Your task to perform on an android device: open app "YouTube Kids" Image 0: 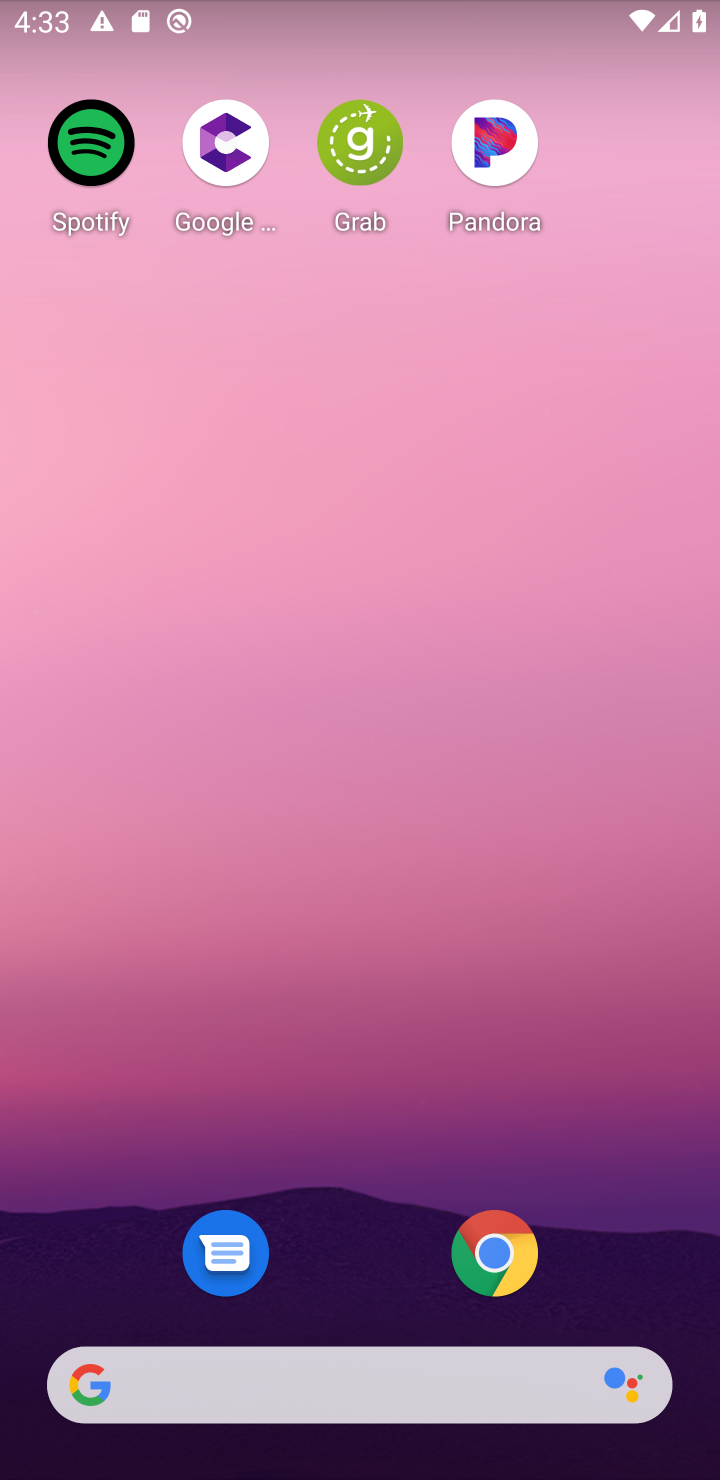
Step 0: drag from (315, 1268) to (491, 206)
Your task to perform on an android device: open app "YouTube Kids" Image 1: 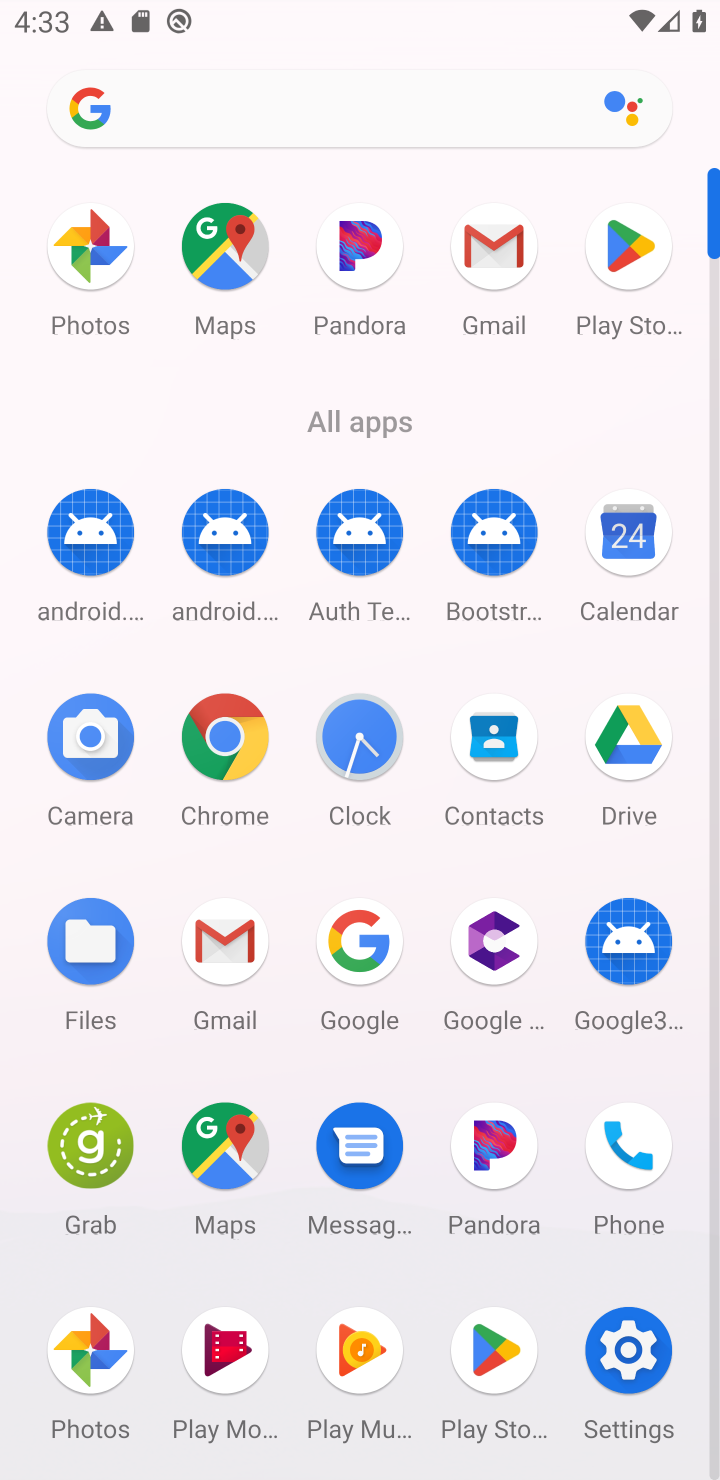
Step 1: click (634, 232)
Your task to perform on an android device: open app "YouTube Kids" Image 2: 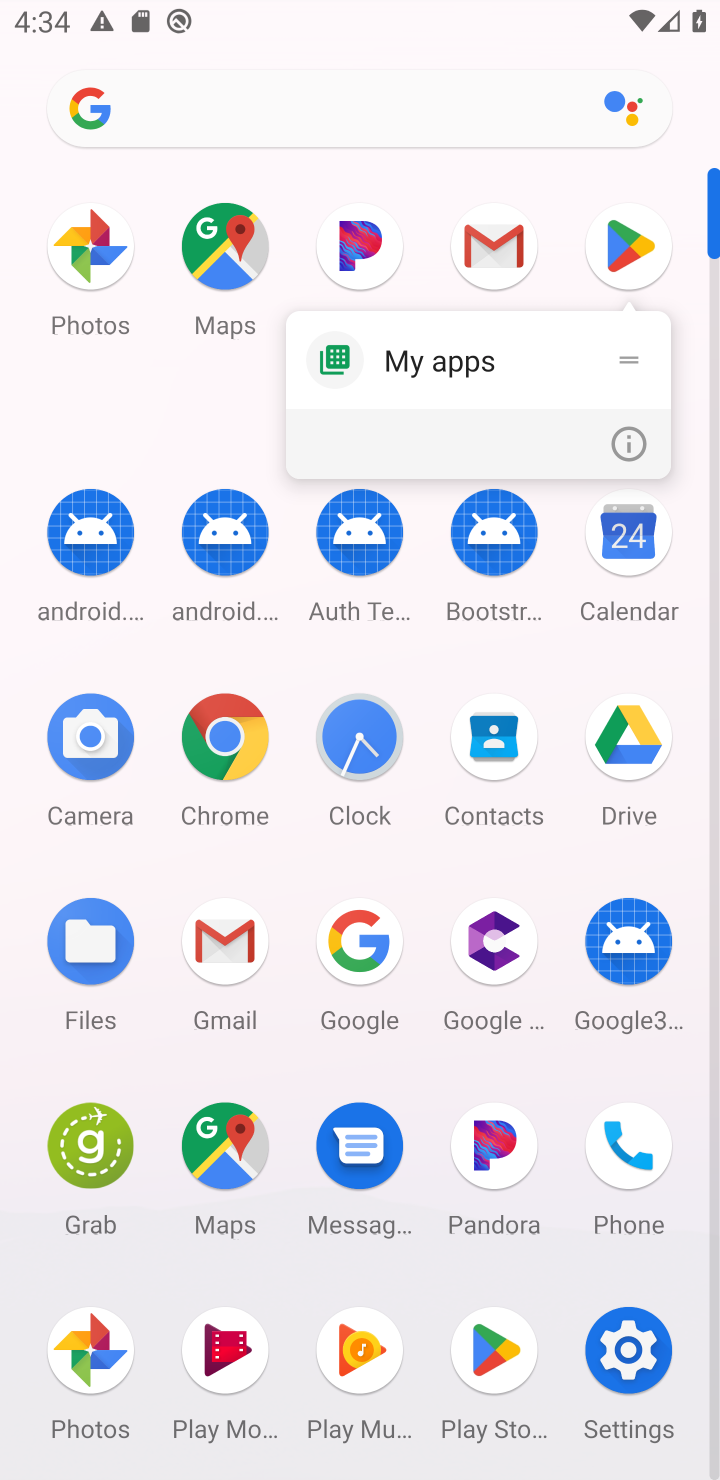
Step 2: click (624, 223)
Your task to perform on an android device: open app "YouTube Kids" Image 3: 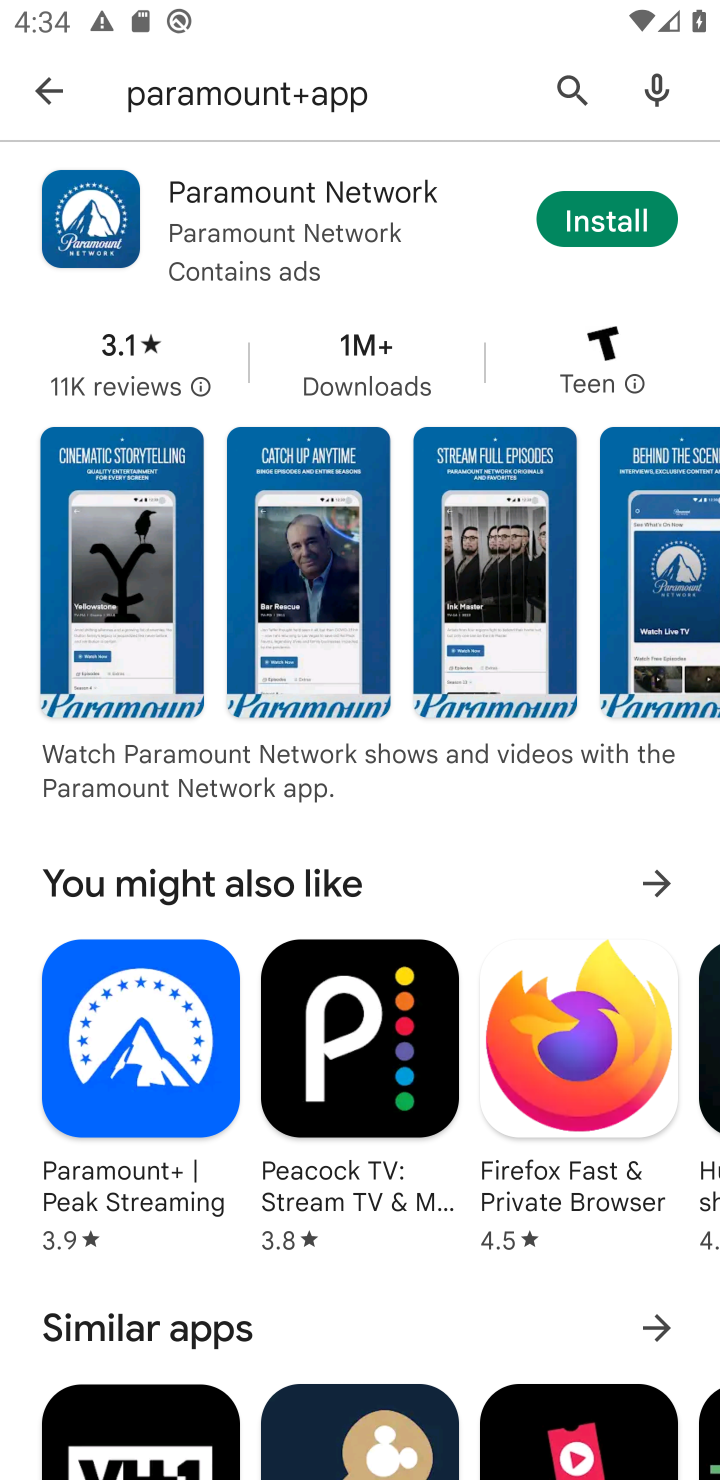
Step 3: click (565, 80)
Your task to perform on an android device: open app "YouTube Kids" Image 4: 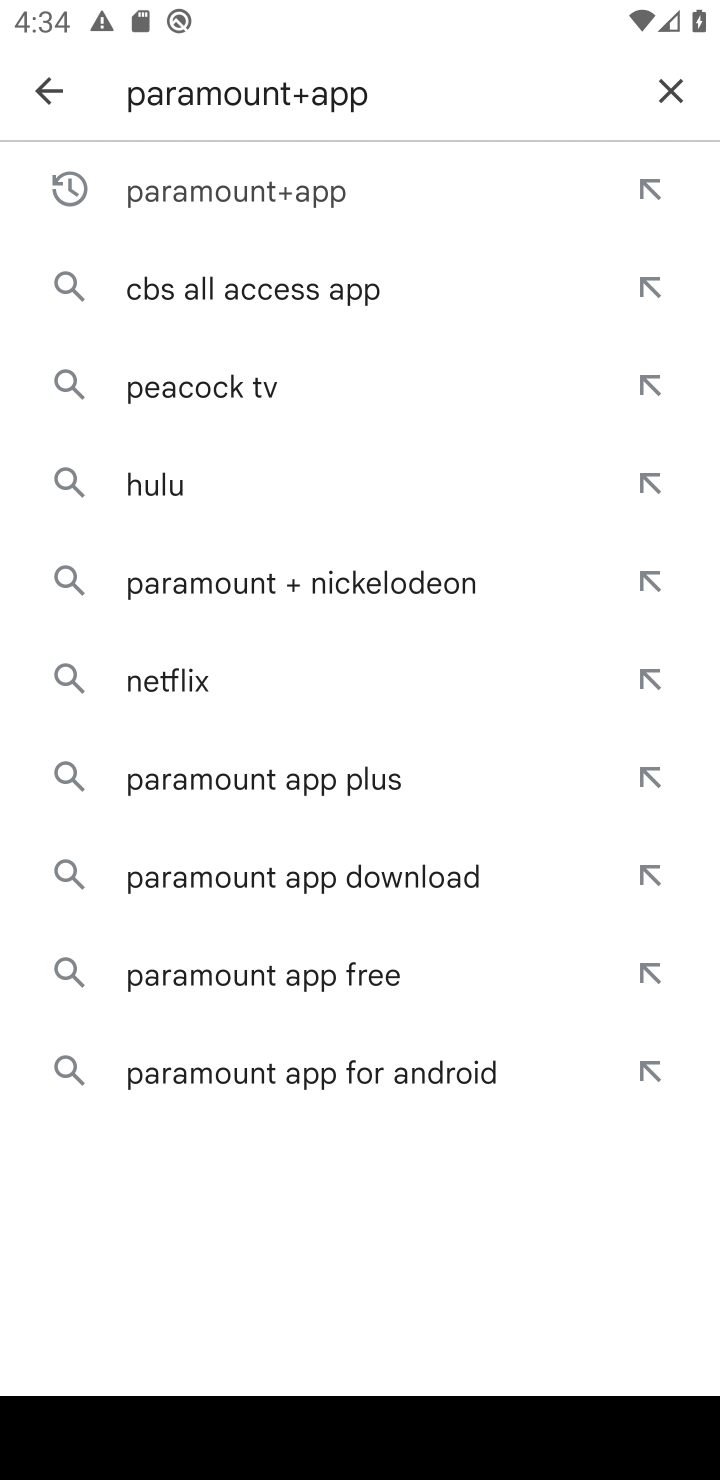
Step 4: click (676, 80)
Your task to perform on an android device: open app "YouTube Kids" Image 5: 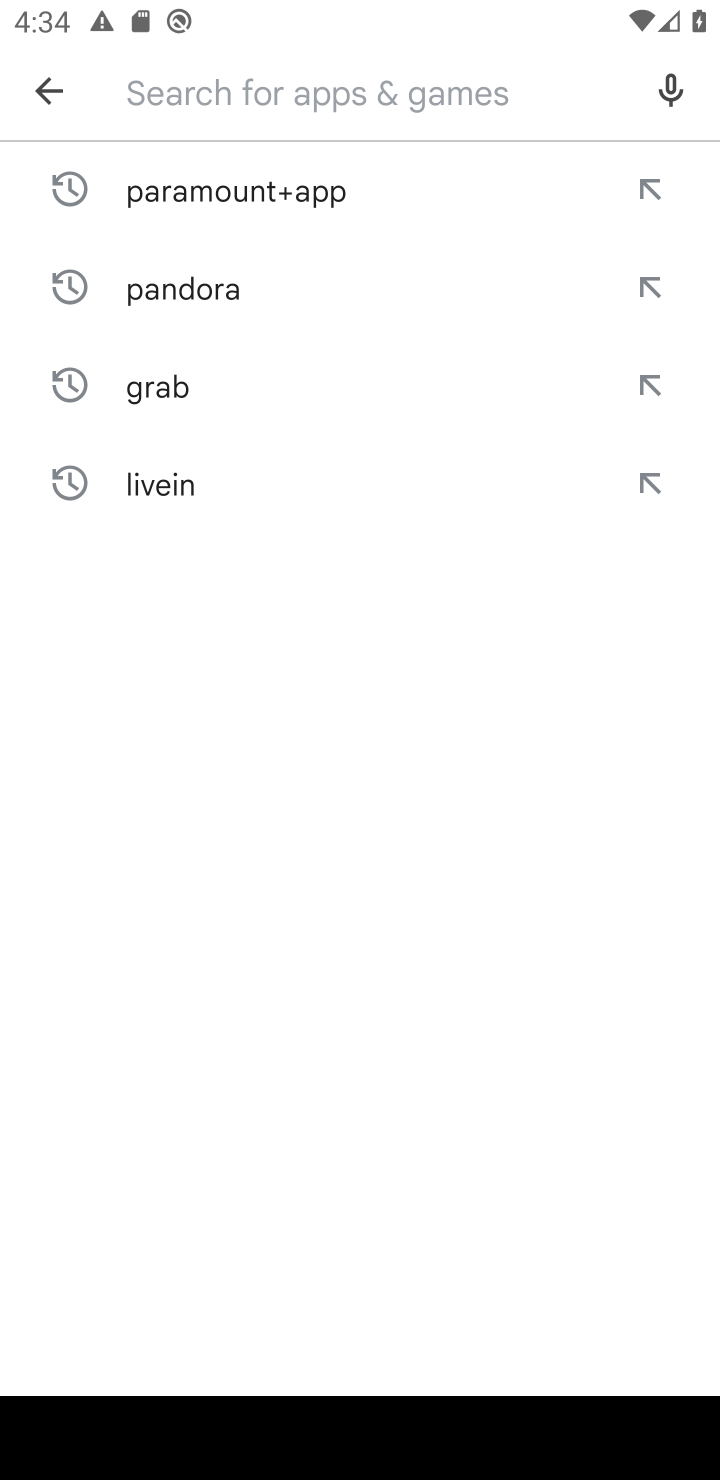
Step 5: click (287, 110)
Your task to perform on an android device: open app "YouTube Kids" Image 6: 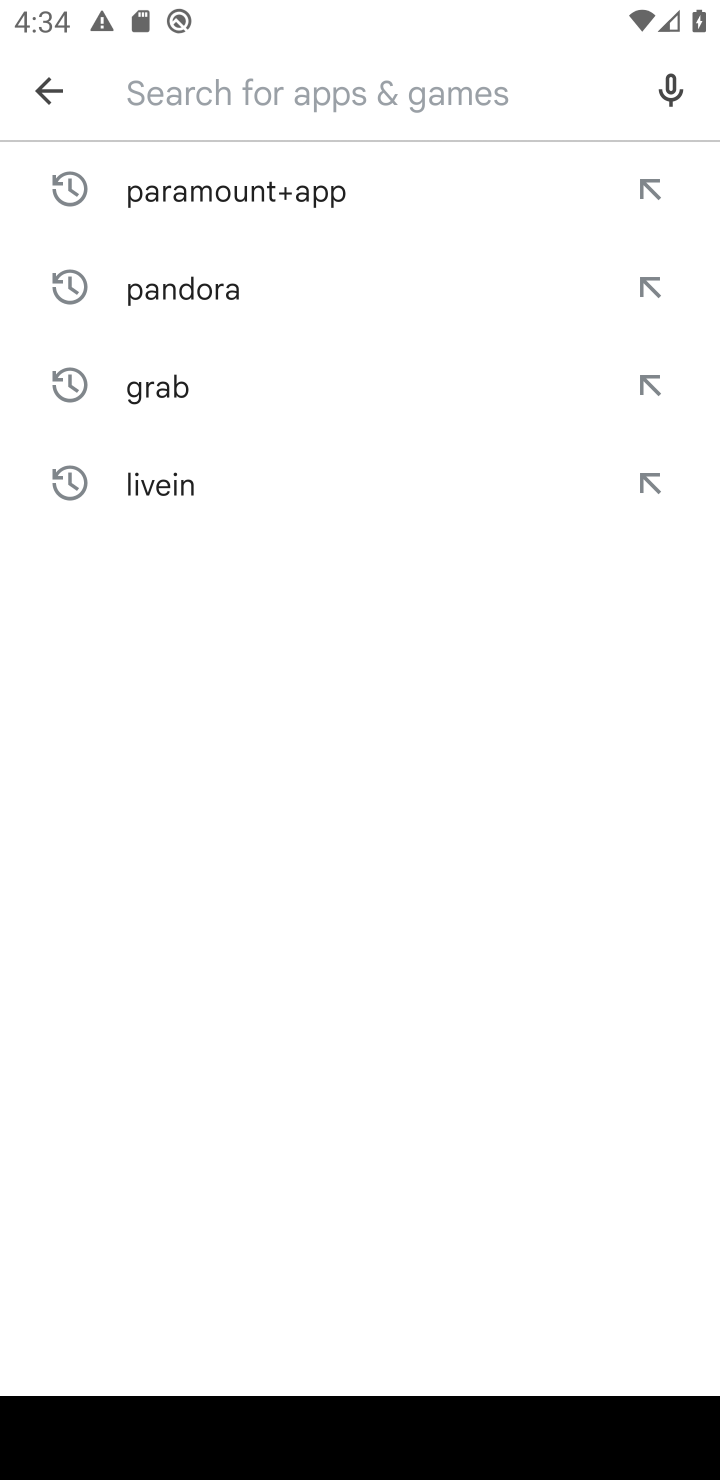
Step 6: type "YouTube Kids"
Your task to perform on an android device: open app "YouTube Kids" Image 7: 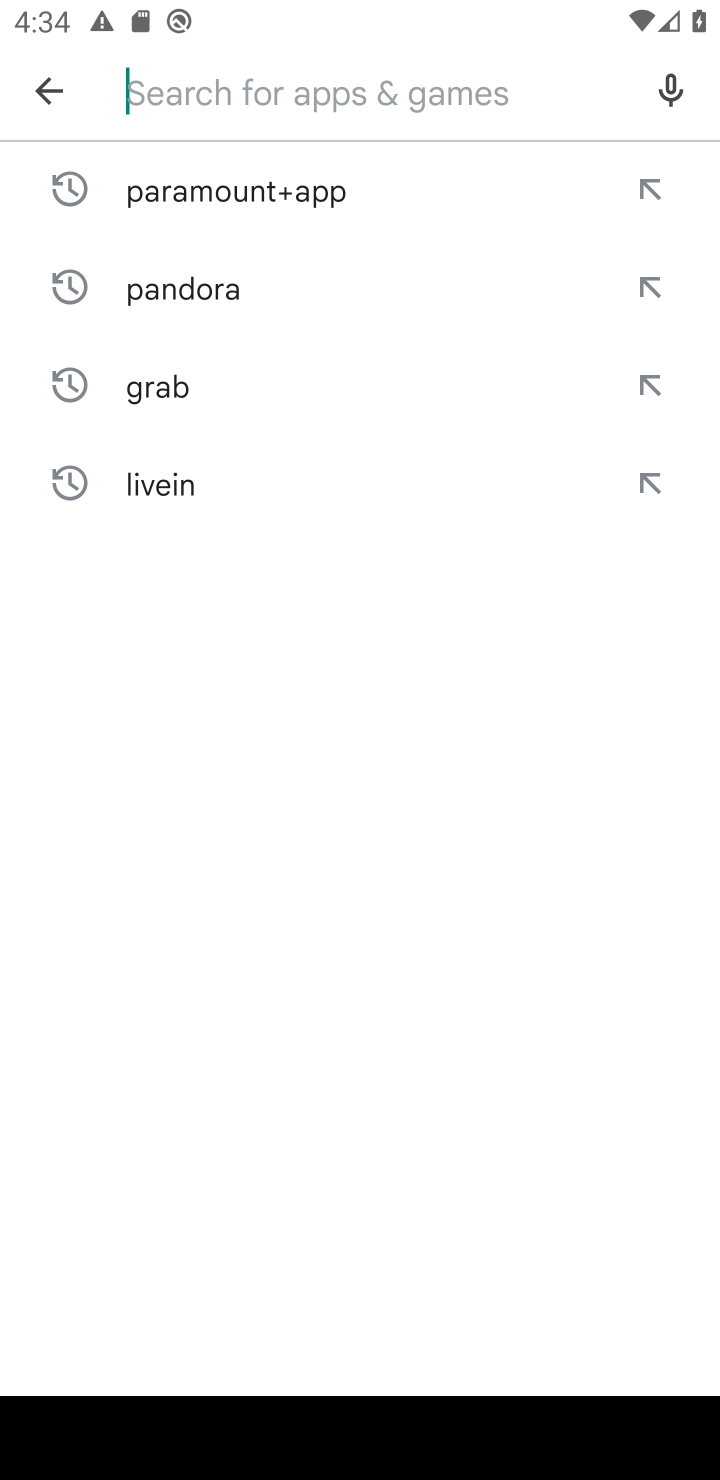
Step 7: click (552, 974)
Your task to perform on an android device: open app "YouTube Kids" Image 8: 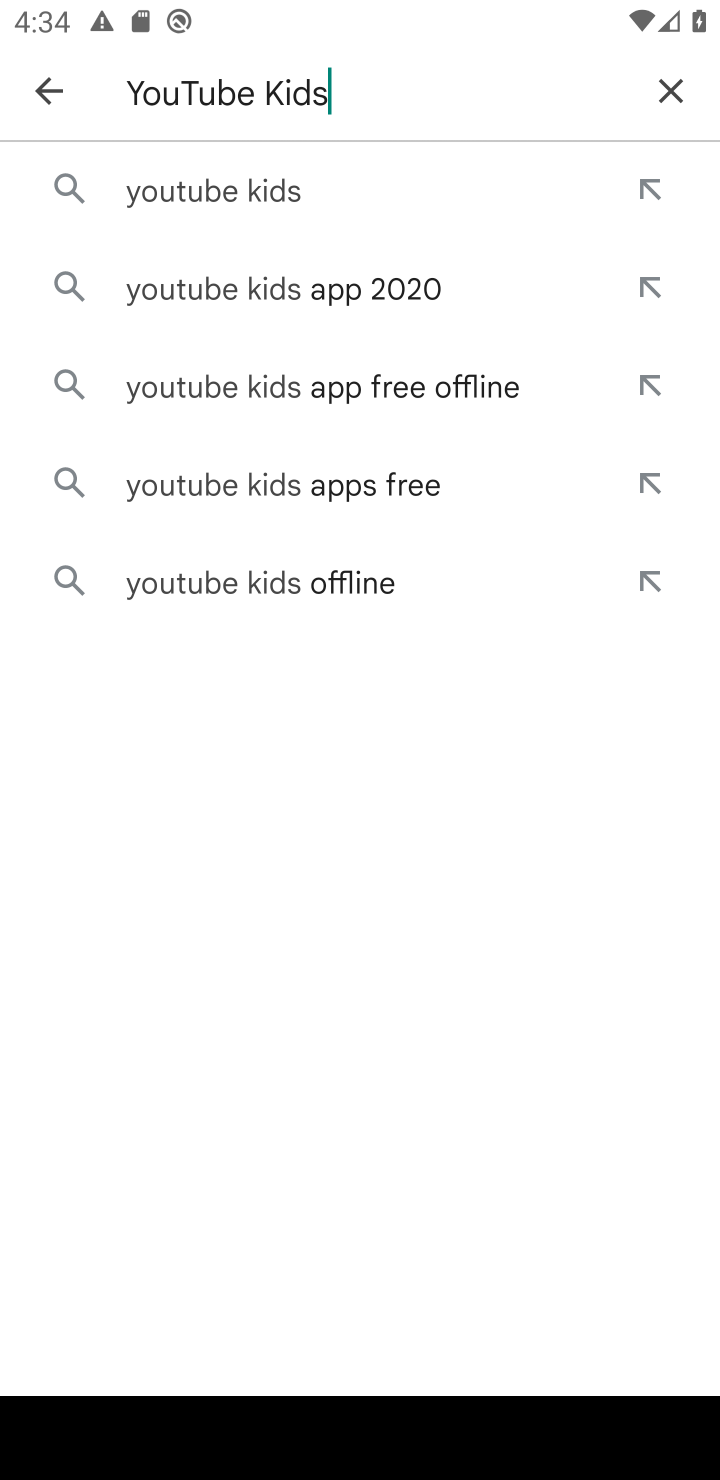
Step 8: click (223, 174)
Your task to perform on an android device: open app "YouTube Kids" Image 9: 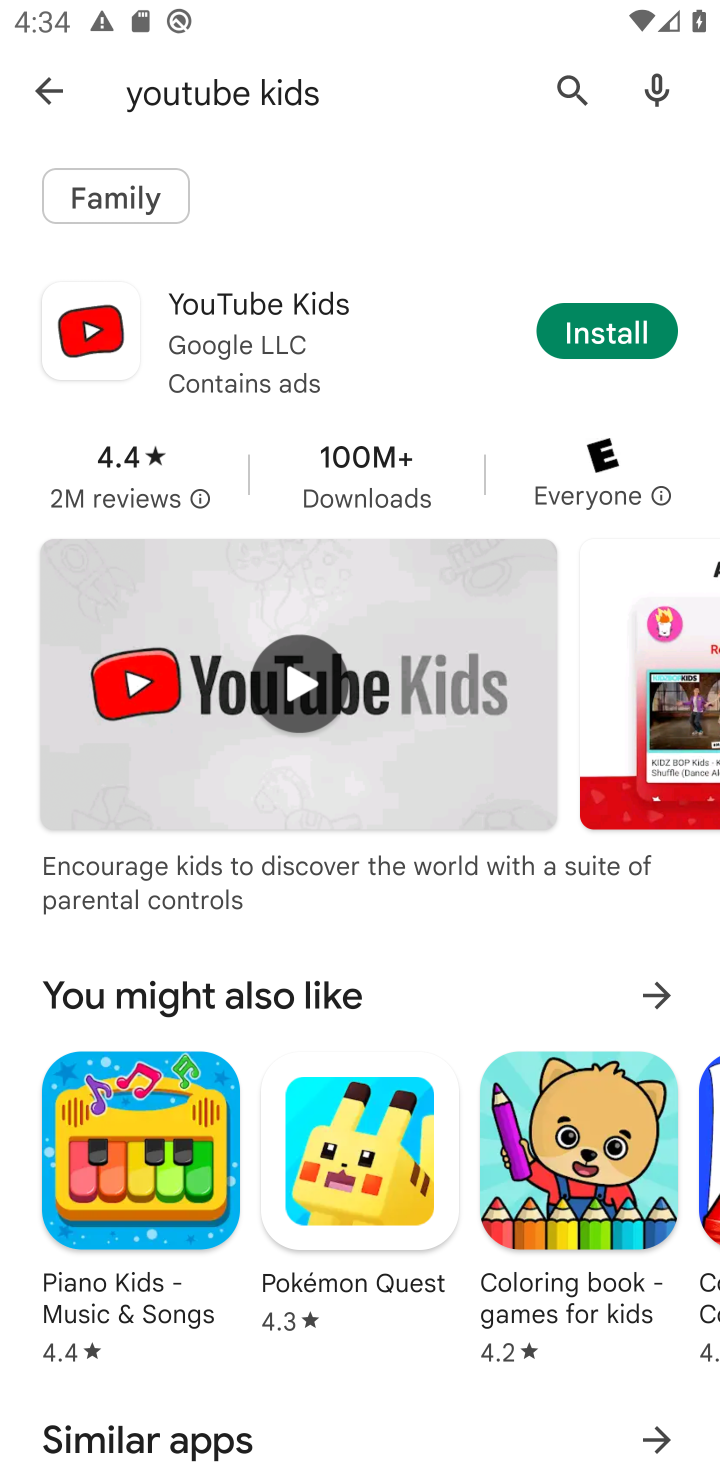
Step 9: task complete